Your task to perform on an android device: delete browsing data in the chrome app Image 0: 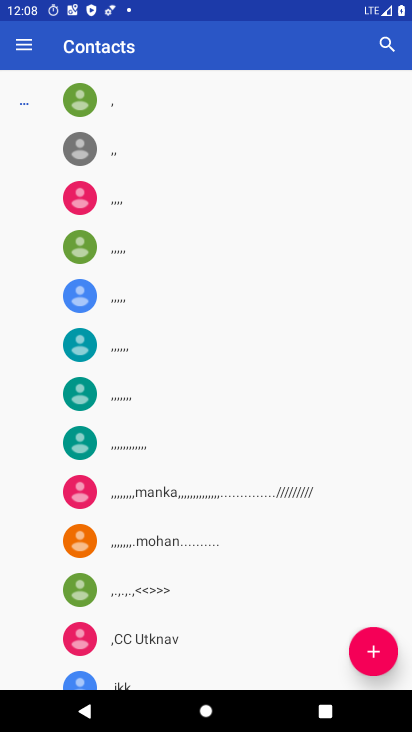
Step 0: press home button
Your task to perform on an android device: delete browsing data in the chrome app Image 1: 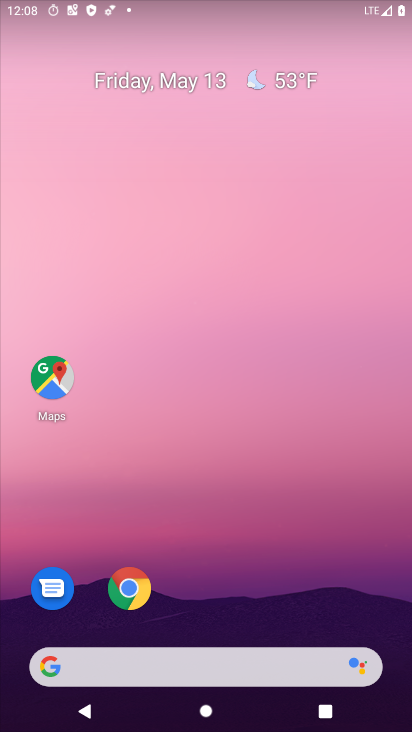
Step 1: click (130, 578)
Your task to perform on an android device: delete browsing data in the chrome app Image 2: 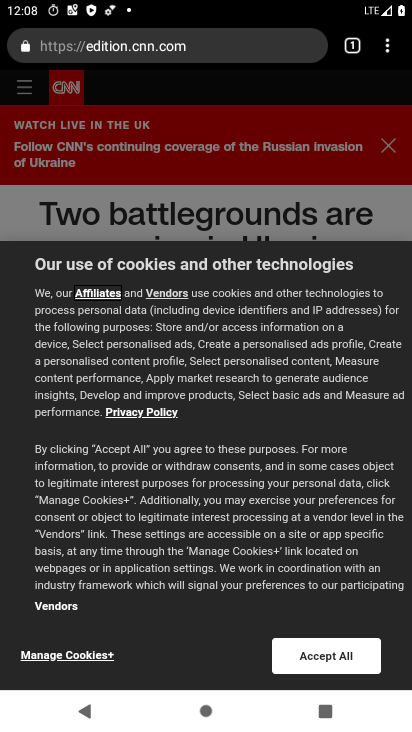
Step 2: drag from (386, 39) to (231, 267)
Your task to perform on an android device: delete browsing data in the chrome app Image 3: 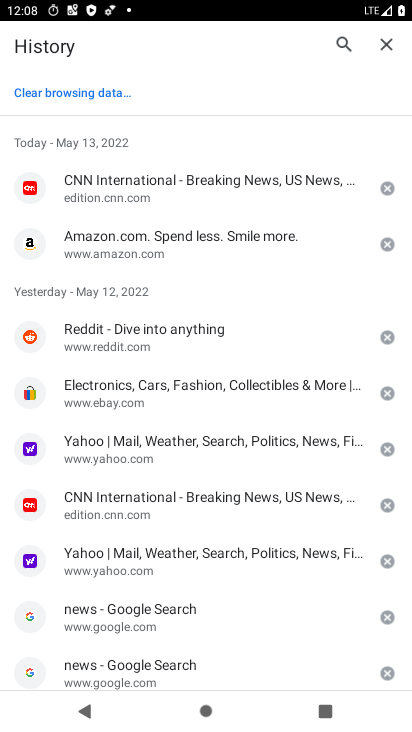
Step 3: click (69, 95)
Your task to perform on an android device: delete browsing data in the chrome app Image 4: 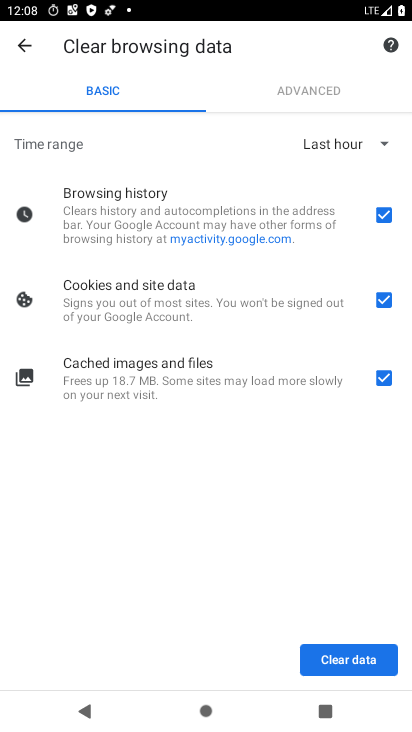
Step 4: click (341, 138)
Your task to perform on an android device: delete browsing data in the chrome app Image 5: 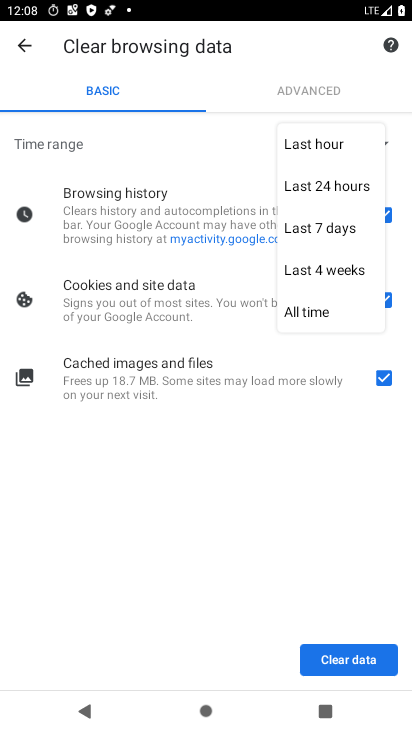
Step 5: click (319, 318)
Your task to perform on an android device: delete browsing data in the chrome app Image 6: 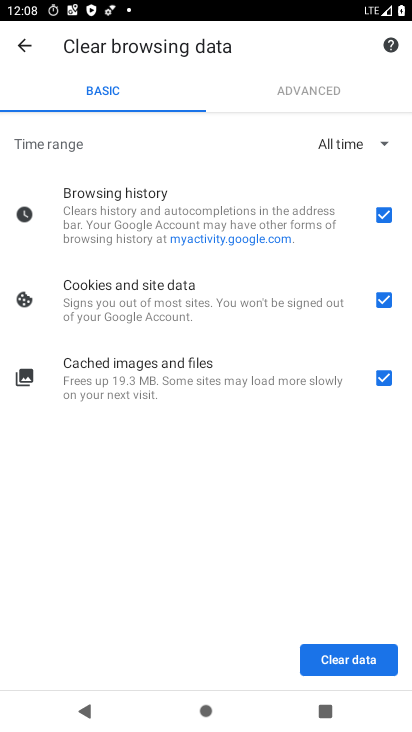
Step 6: click (340, 667)
Your task to perform on an android device: delete browsing data in the chrome app Image 7: 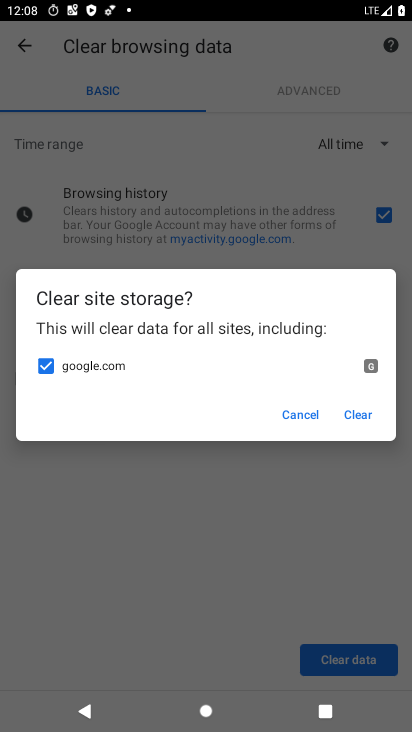
Step 7: click (351, 411)
Your task to perform on an android device: delete browsing data in the chrome app Image 8: 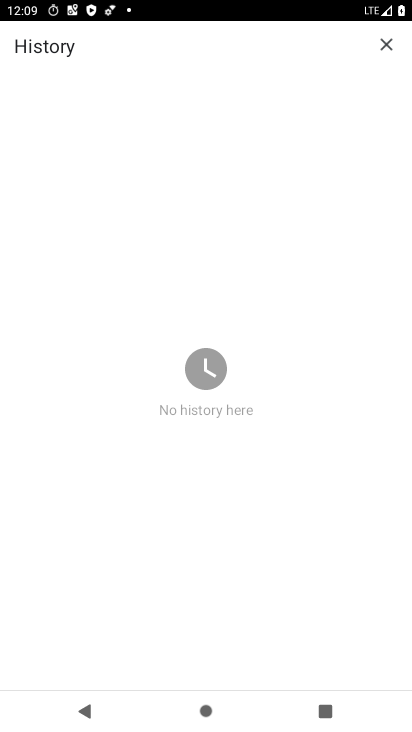
Step 8: task complete